Your task to perform on an android device: Open Chrome and go to settings Image 0: 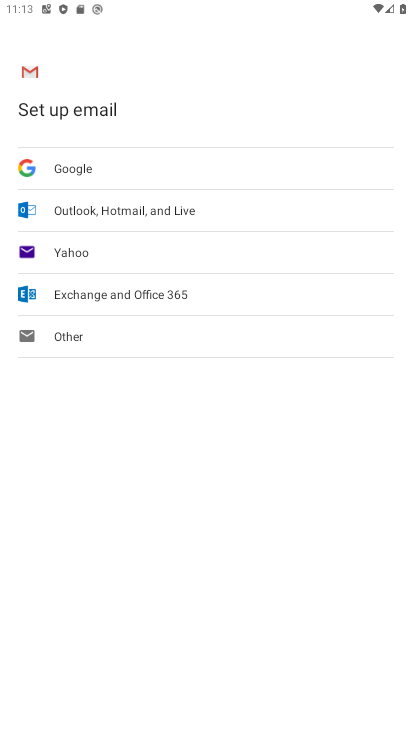
Step 0: press home button
Your task to perform on an android device: Open Chrome and go to settings Image 1: 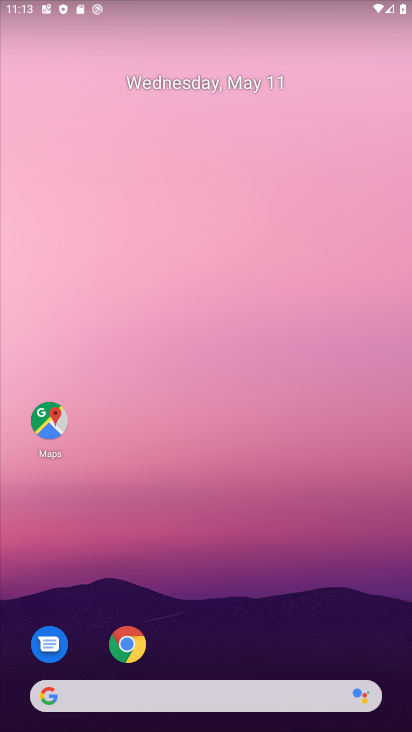
Step 1: click (141, 631)
Your task to perform on an android device: Open Chrome and go to settings Image 2: 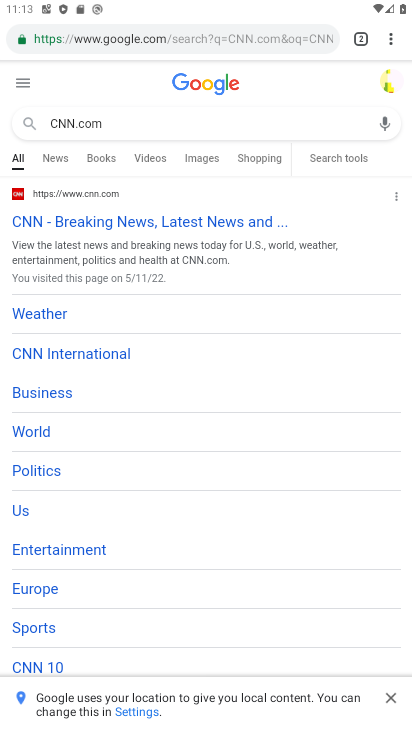
Step 2: click (383, 701)
Your task to perform on an android device: Open Chrome and go to settings Image 3: 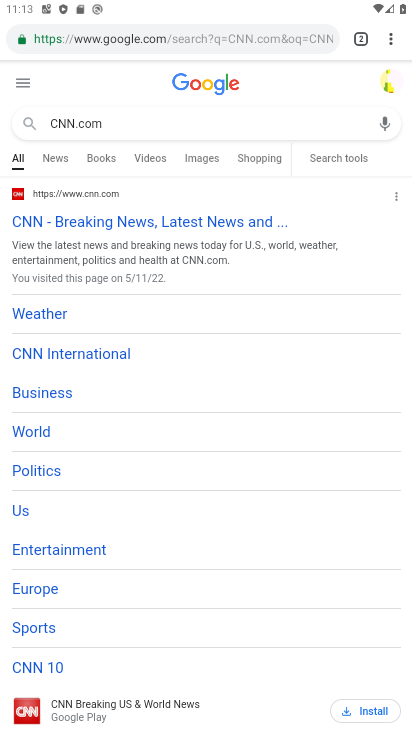
Step 3: click (384, 49)
Your task to perform on an android device: Open Chrome and go to settings Image 4: 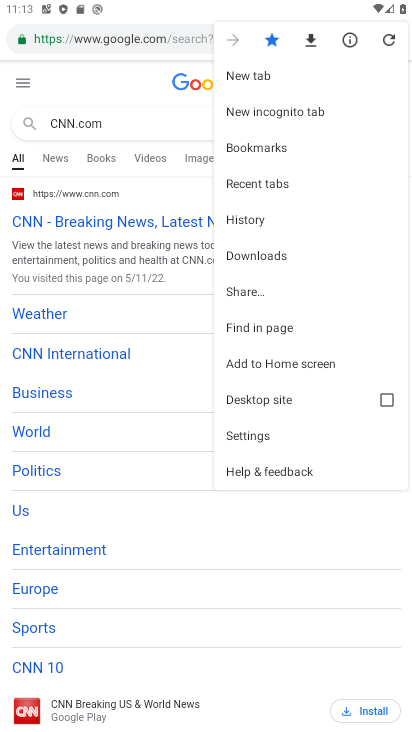
Step 4: click (292, 418)
Your task to perform on an android device: Open Chrome and go to settings Image 5: 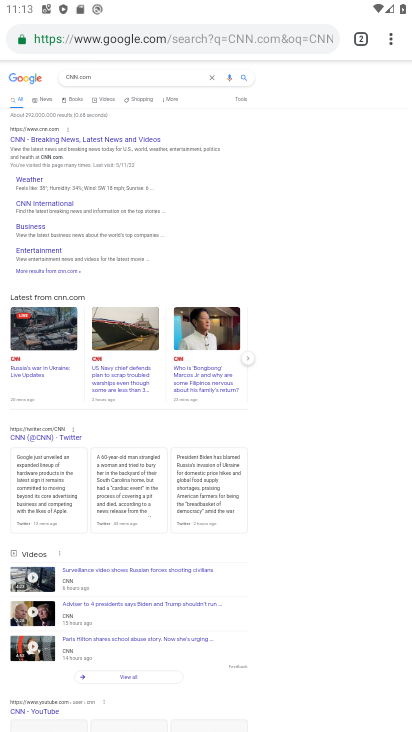
Step 5: task complete